Your task to perform on an android device: Open calendar and show me the first week of next month Image 0: 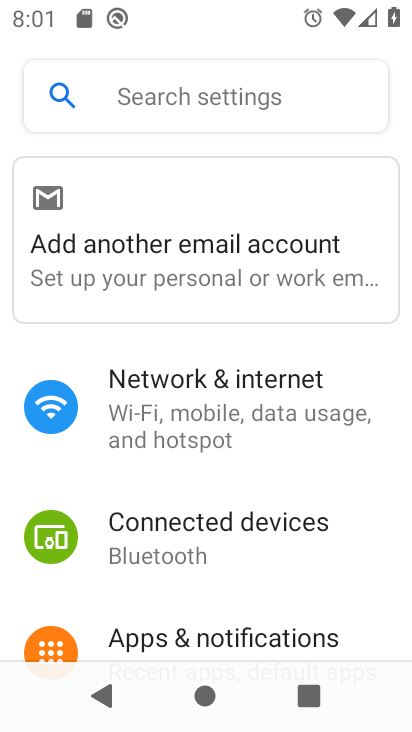
Step 0: press home button
Your task to perform on an android device: Open calendar and show me the first week of next month Image 1: 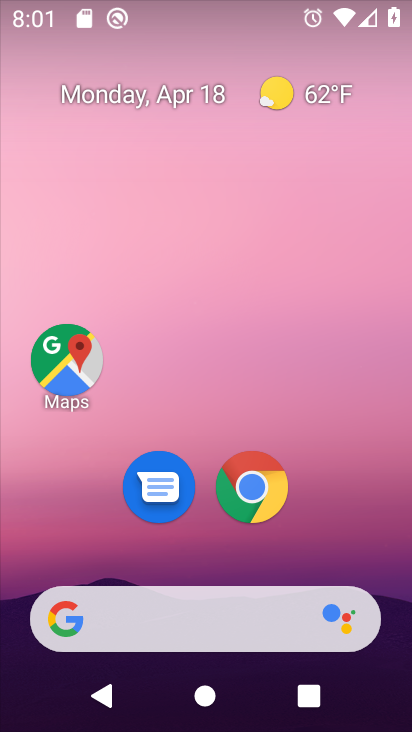
Step 1: drag from (205, 530) to (208, 102)
Your task to perform on an android device: Open calendar and show me the first week of next month Image 2: 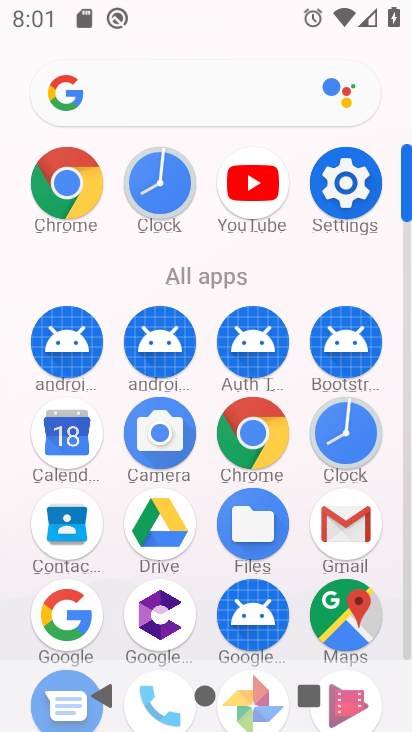
Step 2: click (66, 432)
Your task to perform on an android device: Open calendar and show me the first week of next month Image 3: 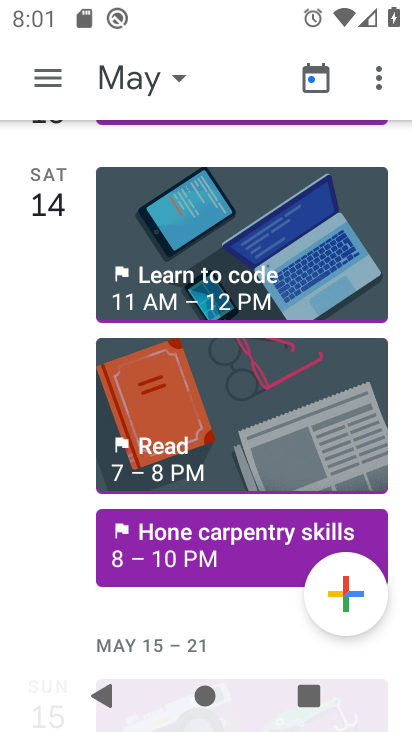
Step 3: click (43, 77)
Your task to perform on an android device: Open calendar and show me the first week of next month Image 4: 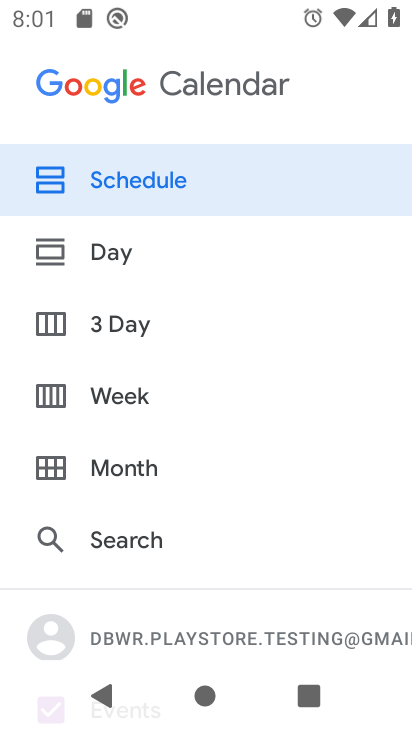
Step 4: click (89, 393)
Your task to perform on an android device: Open calendar and show me the first week of next month Image 5: 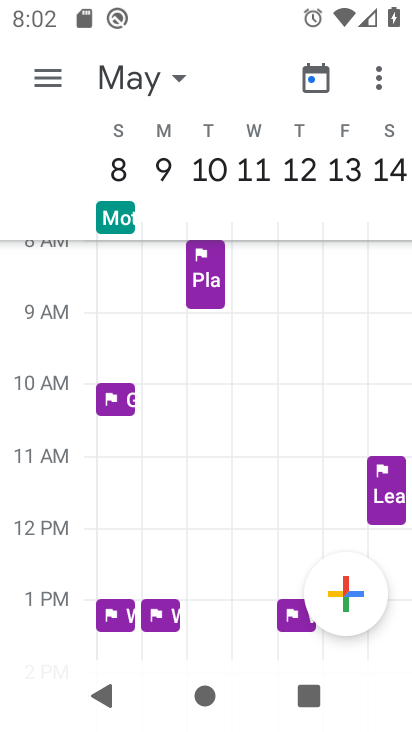
Step 5: drag from (113, 167) to (394, 171)
Your task to perform on an android device: Open calendar and show me the first week of next month Image 6: 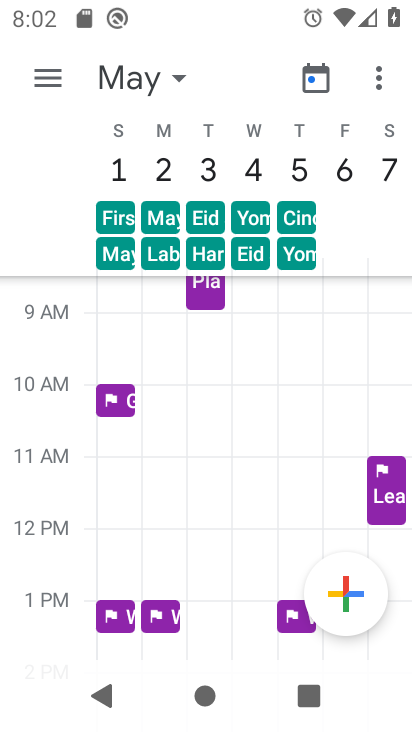
Step 6: click (116, 164)
Your task to perform on an android device: Open calendar and show me the first week of next month Image 7: 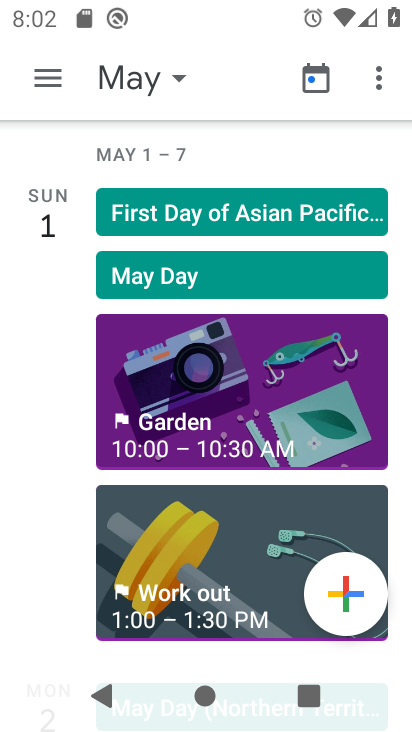
Step 7: task complete